Your task to perform on an android device: turn off notifications in google photos Image 0: 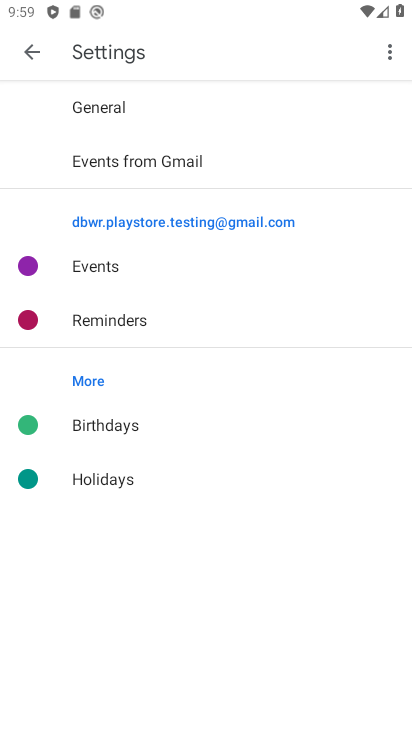
Step 0: press home button
Your task to perform on an android device: turn off notifications in google photos Image 1: 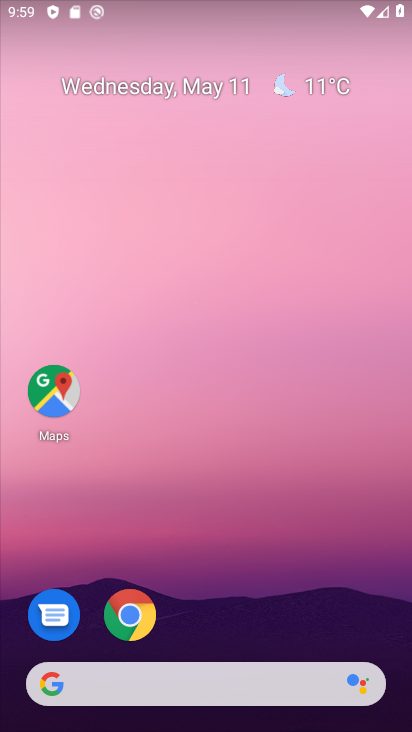
Step 1: drag from (240, 590) to (285, 121)
Your task to perform on an android device: turn off notifications in google photos Image 2: 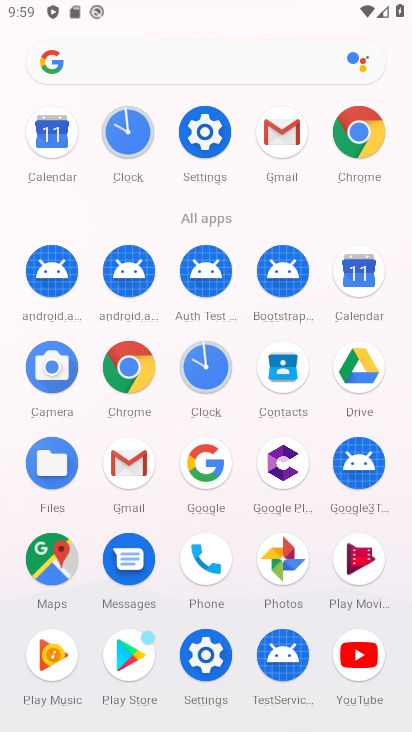
Step 2: click (283, 550)
Your task to perform on an android device: turn off notifications in google photos Image 3: 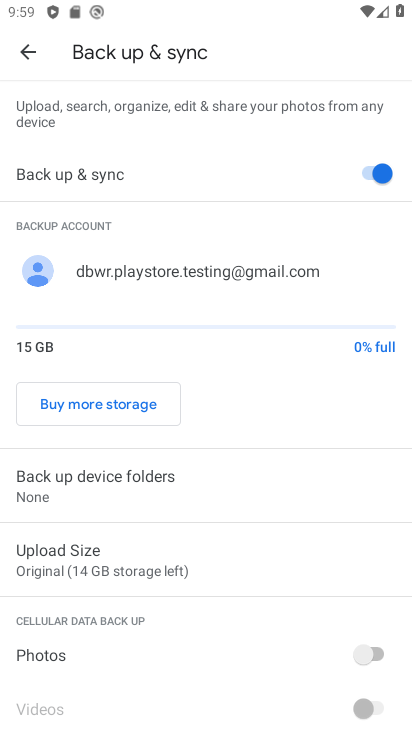
Step 3: click (26, 58)
Your task to perform on an android device: turn off notifications in google photos Image 4: 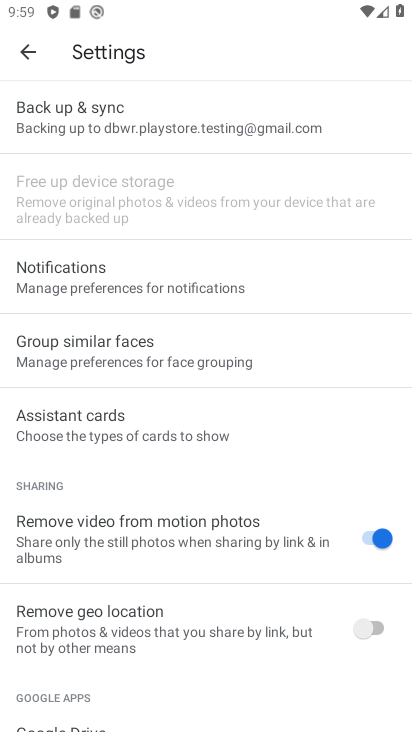
Step 4: click (84, 273)
Your task to perform on an android device: turn off notifications in google photos Image 5: 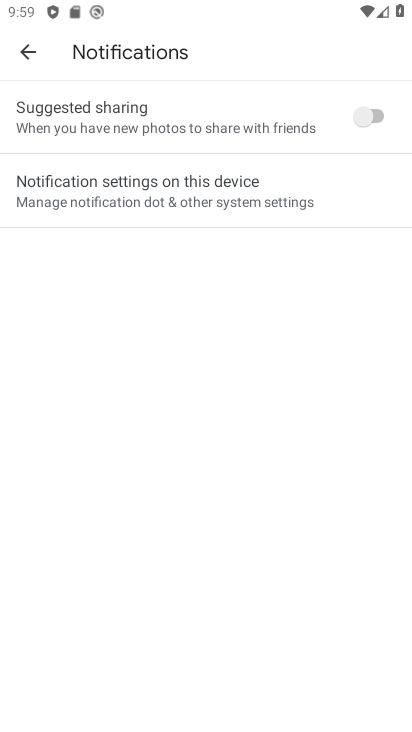
Step 5: click (139, 190)
Your task to perform on an android device: turn off notifications in google photos Image 6: 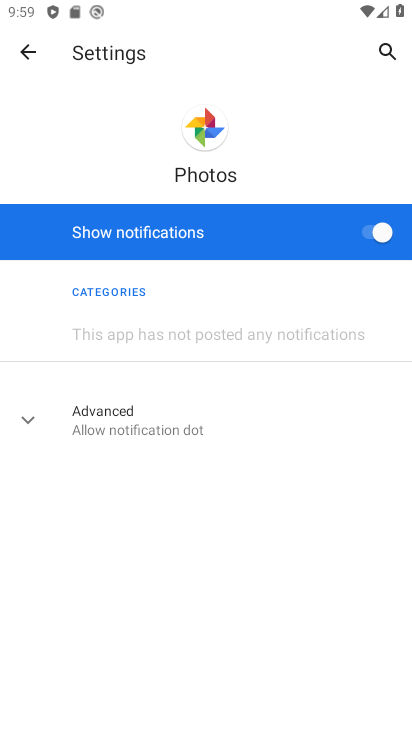
Step 6: click (387, 239)
Your task to perform on an android device: turn off notifications in google photos Image 7: 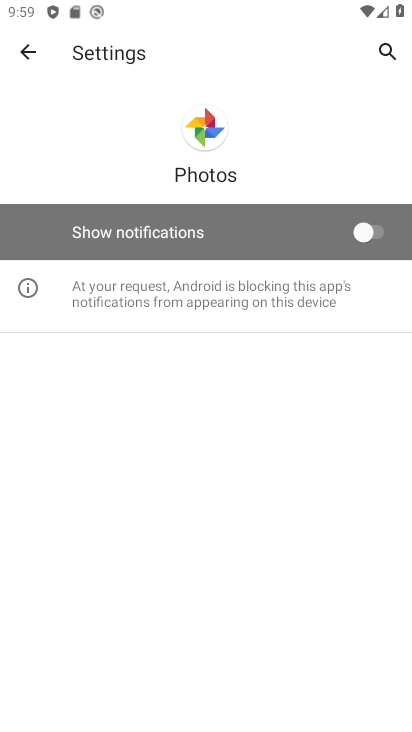
Step 7: task complete